Your task to perform on an android device: Do I have any events this weekend? Image 0: 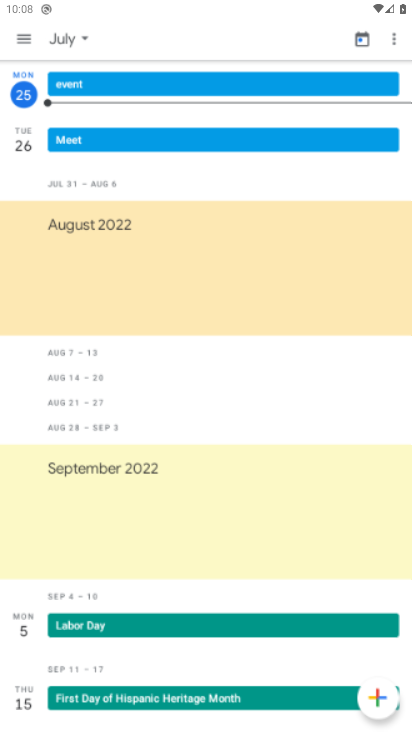
Step 0: drag from (277, 557) to (320, 87)
Your task to perform on an android device: Do I have any events this weekend? Image 1: 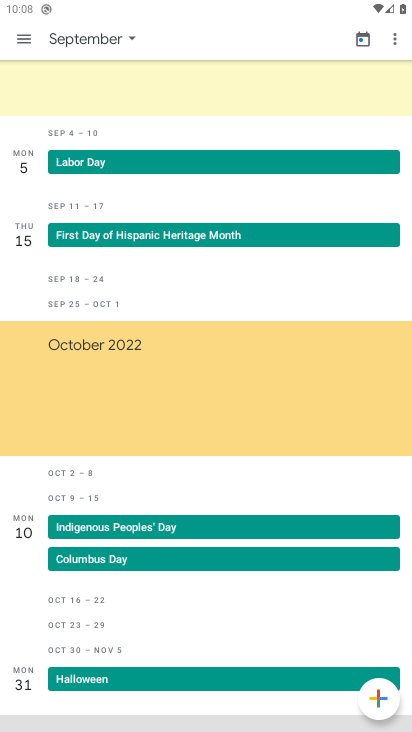
Step 1: press home button
Your task to perform on an android device: Do I have any events this weekend? Image 2: 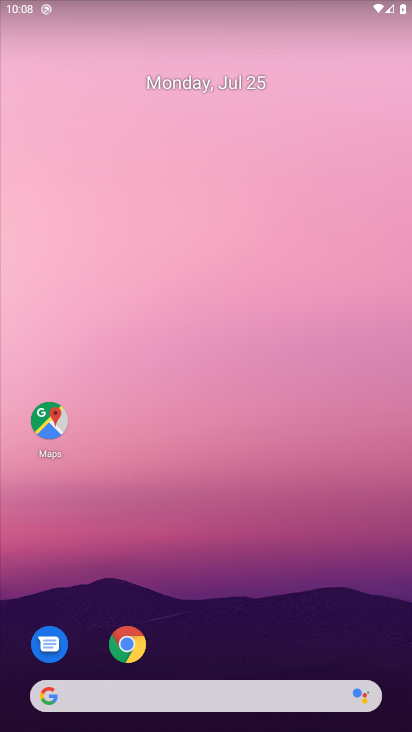
Step 2: drag from (261, 656) to (362, 71)
Your task to perform on an android device: Do I have any events this weekend? Image 3: 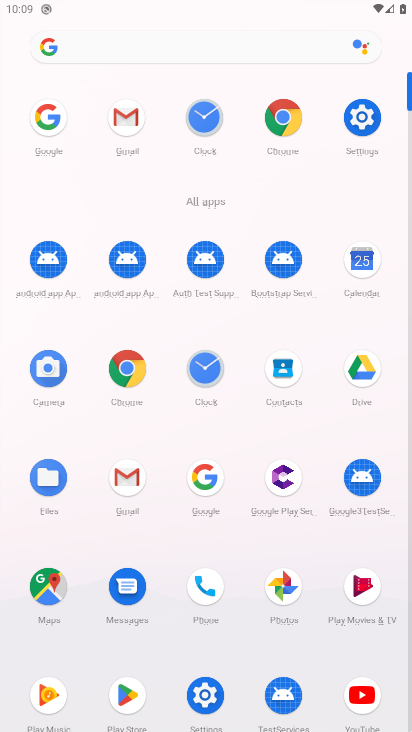
Step 3: click (358, 262)
Your task to perform on an android device: Do I have any events this weekend? Image 4: 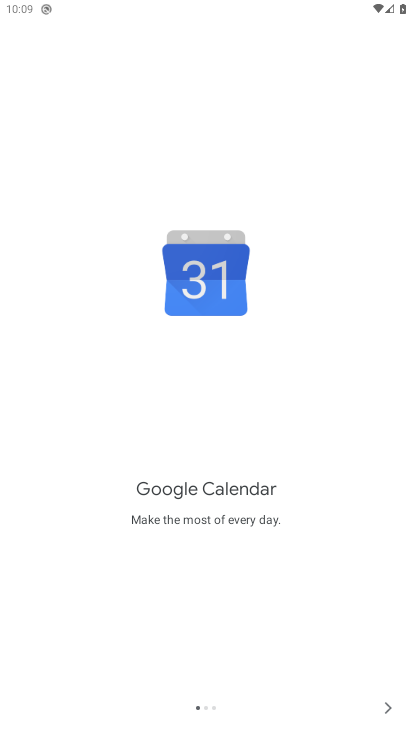
Step 4: click (391, 706)
Your task to perform on an android device: Do I have any events this weekend? Image 5: 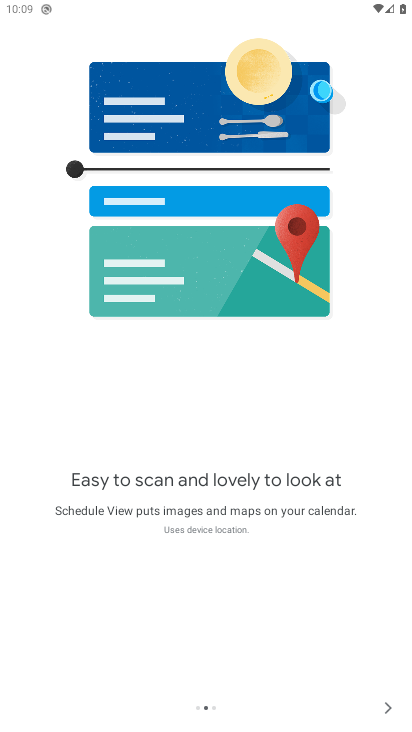
Step 5: click (391, 706)
Your task to perform on an android device: Do I have any events this weekend? Image 6: 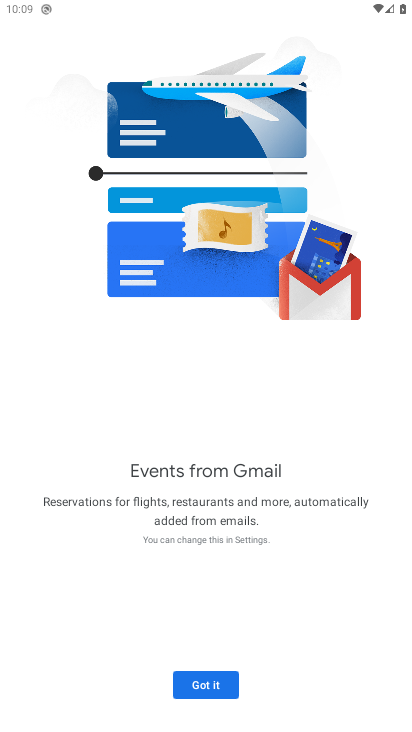
Step 6: click (229, 677)
Your task to perform on an android device: Do I have any events this weekend? Image 7: 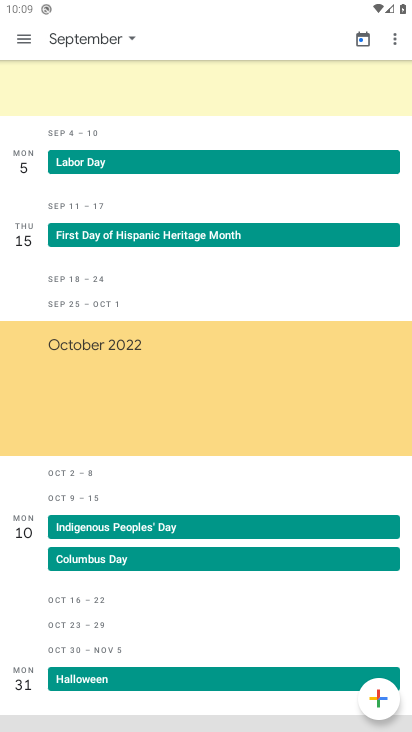
Step 7: click (102, 34)
Your task to perform on an android device: Do I have any events this weekend? Image 8: 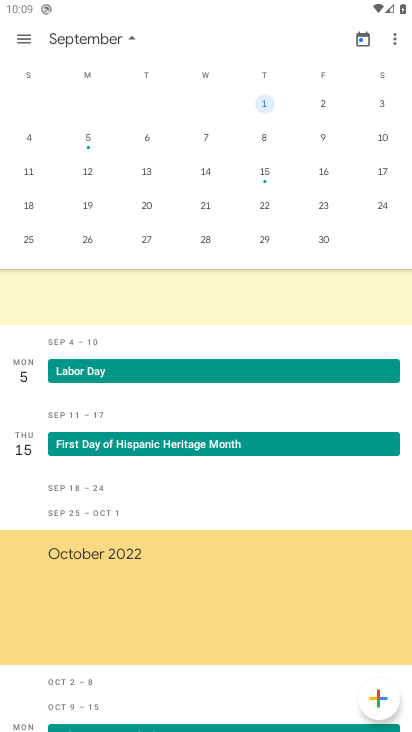
Step 8: drag from (68, 184) to (376, 184)
Your task to perform on an android device: Do I have any events this weekend? Image 9: 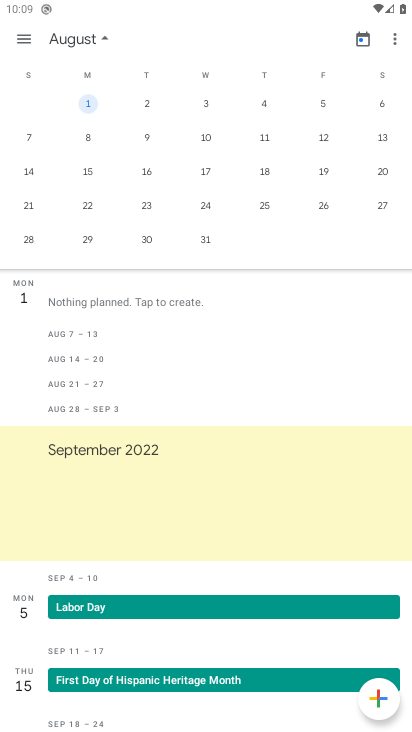
Step 9: drag from (95, 178) to (407, 186)
Your task to perform on an android device: Do I have any events this weekend? Image 10: 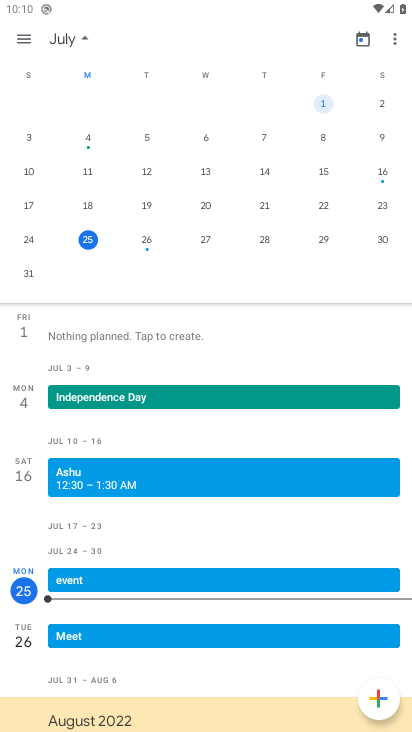
Step 10: click (377, 237)
Your task to perform on an android device: Do I have any events this weekend? Image 11: 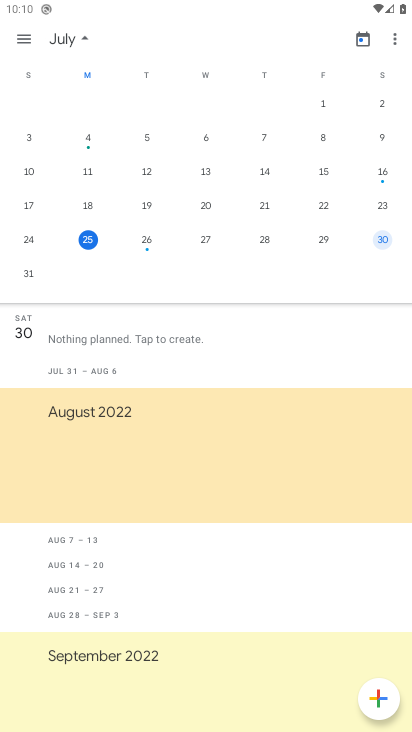
Step 11: task complete